Your task to perform on an android device: Open Android settings Image 0: 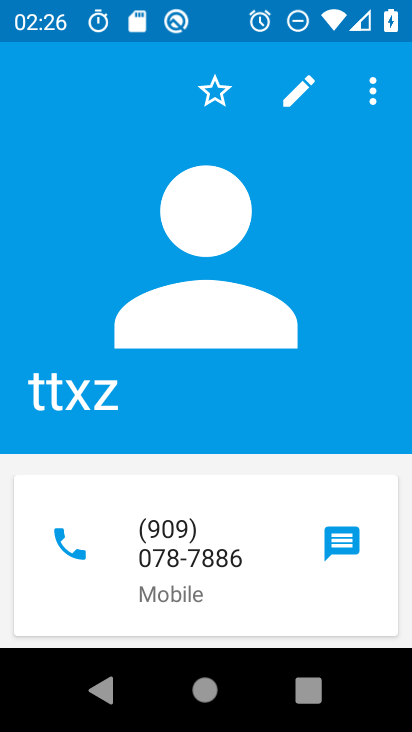
Step 0: press home button
Your task to perform on an android device: Open Android settings Image 1: 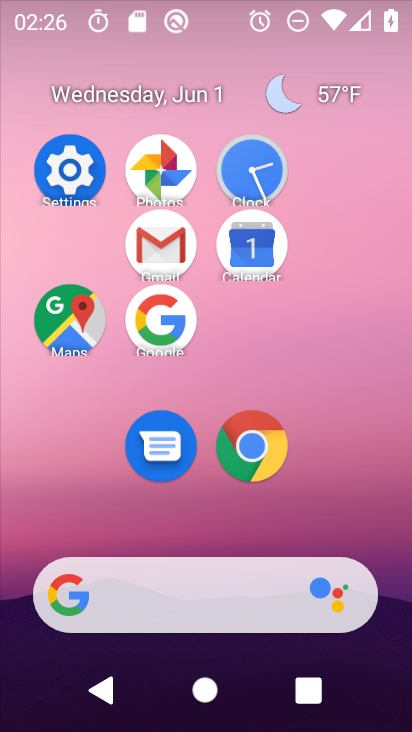
Step 1: click (81, 177)
Your task to perform on an android device: Open Android settings Image 2: 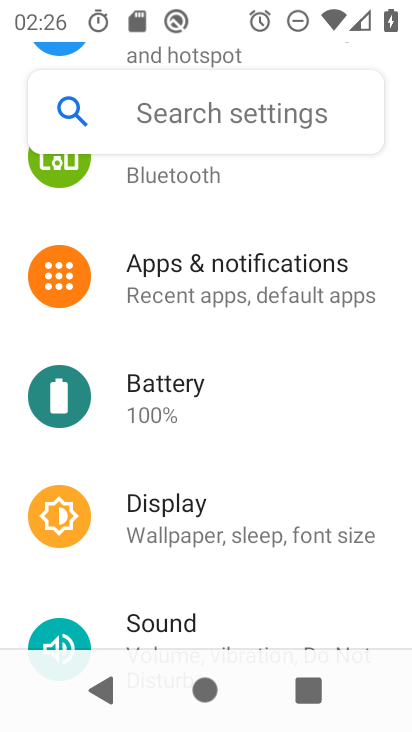
Step 2: task complete